Your task to perform on an android device: Play the last video I watched on Youtube Image 0: 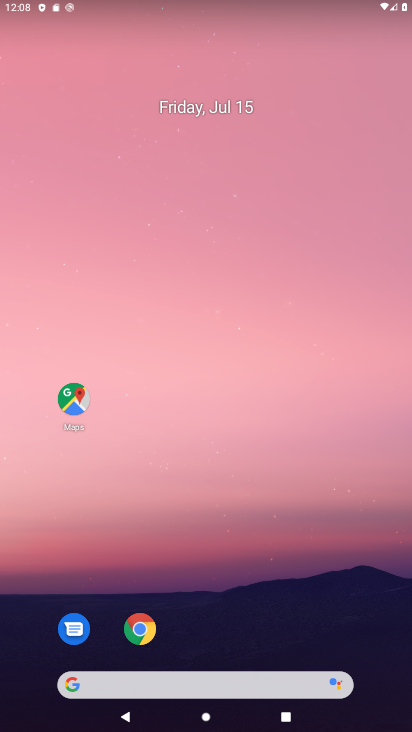
Step 0: click (244, 41)
Your task to perform on an android device: Play the last video I watched on Youtube Image 1: 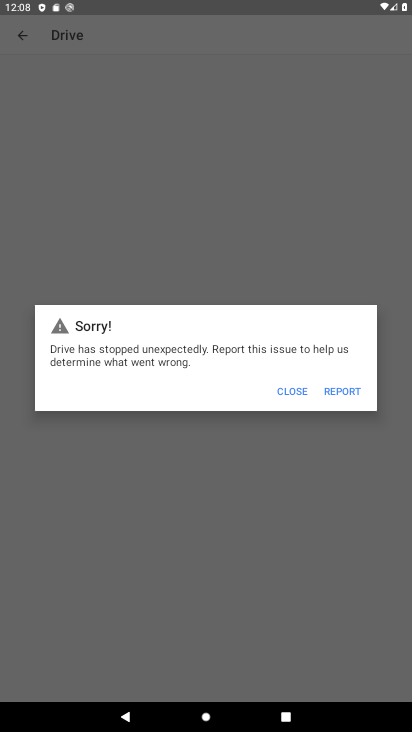
Step 1: press home button
Your task to perform on an android device: Play the last video I watched on Youtube Image 2: 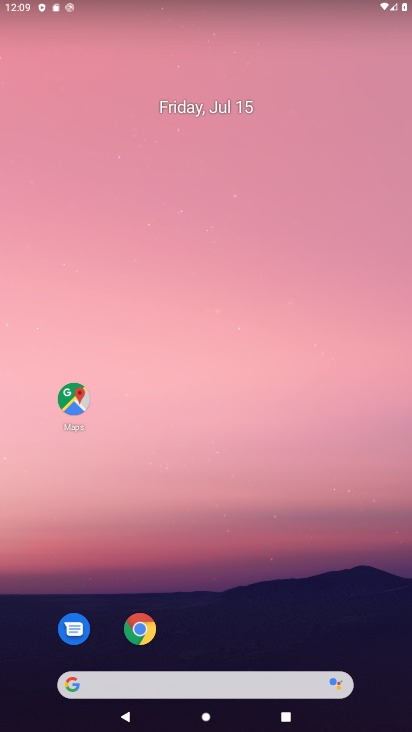
Step 2: drag from (313, 595) to (255, 4)
Your task to perform on an android device: Play the last video I watched on Youtube Image 3: 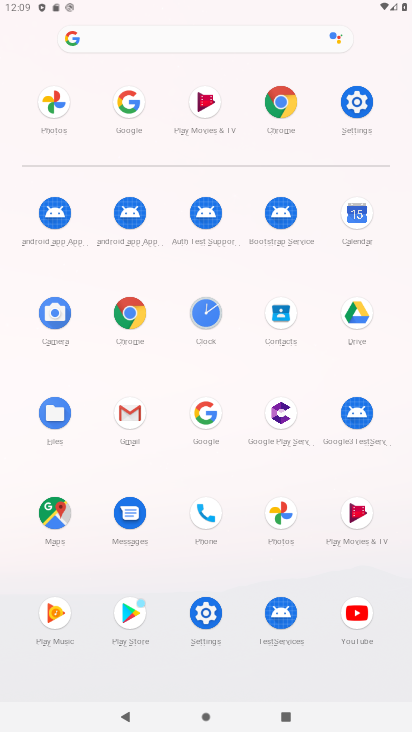
Step 3: click (350, 609)
Your task to perform on an android device: Play the last video I watched on Youtube Image 4: 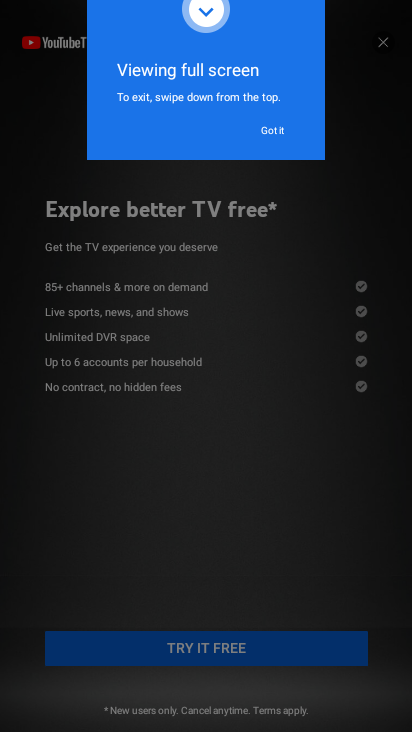
Step 4: click (273, 129)
Your task to perform on an android device: Play the last video I watched on Youtube Image 5: 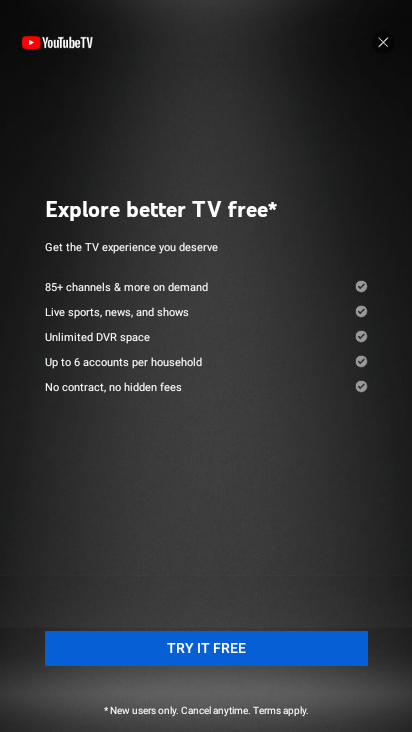
Step 5: click (385, 39)
Your task to perform on an android device: Play the last video I watched on Youtube Image 6: 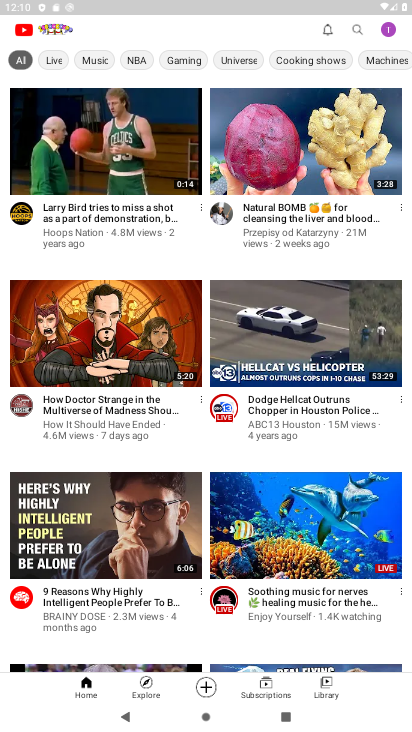
Step 6: click (334, 692)
Your task to perform on an android device: Play the last video I watched on Youtube Image 7: 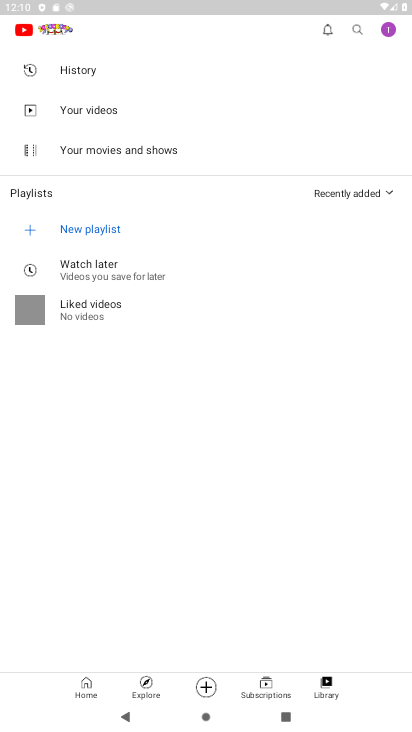
Step 7: click (85, 68)
Your task to perform on an android device: Play the last video I watched on Youtube Image 8: 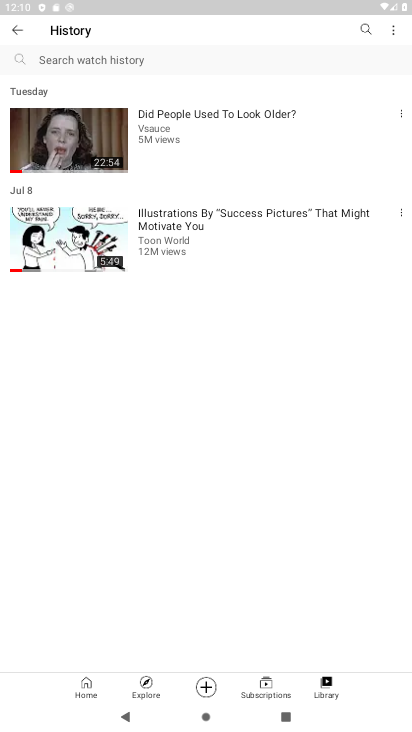
Step 8: click (58, 133)
Your task to perform on an android device: Play the last video I watched on Youtube Image 9: 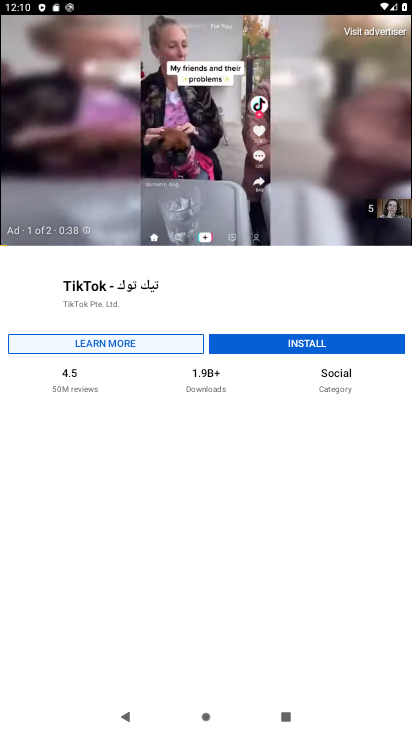
Step 9: task complete